Your task to perform on an android device: Go to calendar. Show me events next week Image 0: 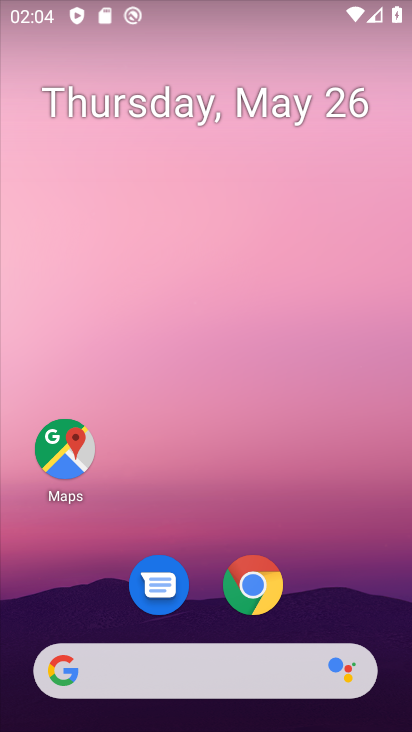
Step 0: drag from (237, 490) to (264, 37)
Your task to perform on an android device: Go to calendar. Show me events next week Image 1: 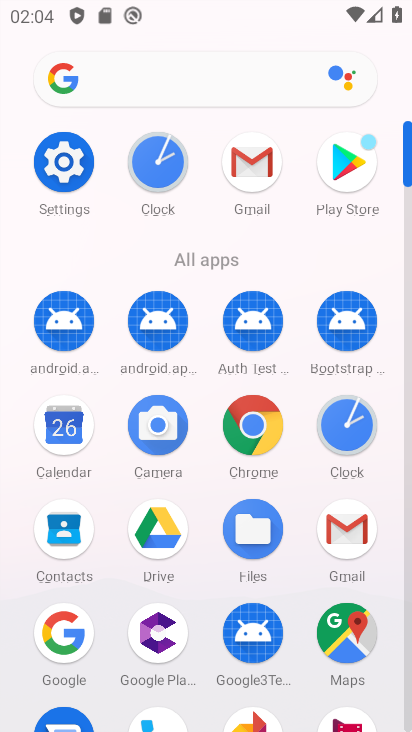
Step 1: click (65, 429)
Your task to perform on an android device: Go to calendar. Show me events next week Image 2: 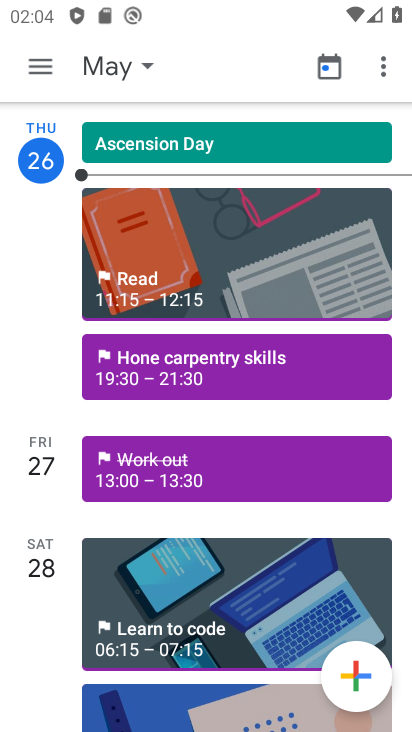
Step 2: click (36, 55)
Your task to perform on an android device: Go to calendar. Show me events next week Image 3: 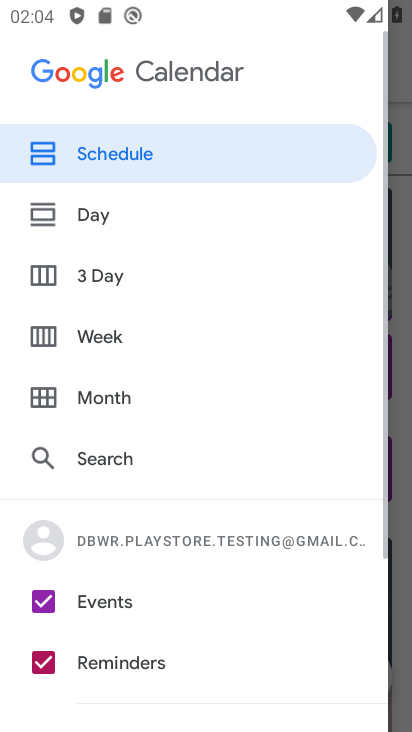
Step 3: click (36, 330)
Your task to perform on an android device: Go to calendar. Show me events next week Image 4: 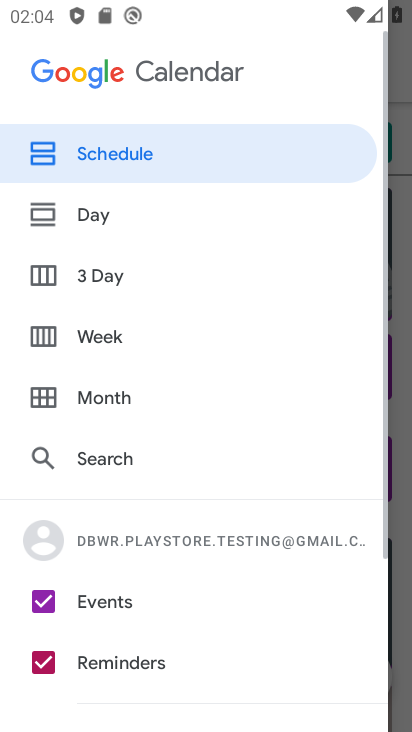
Step 4: click (39, 331)
Your task to perform on an android device: Go to calendar. Show me events next week Image 5: 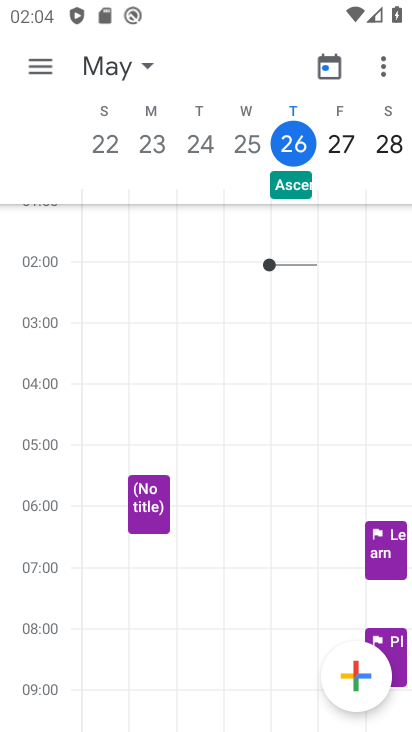
Step 5: task complete